Your task to perform on an android device: Open Google Image 0: 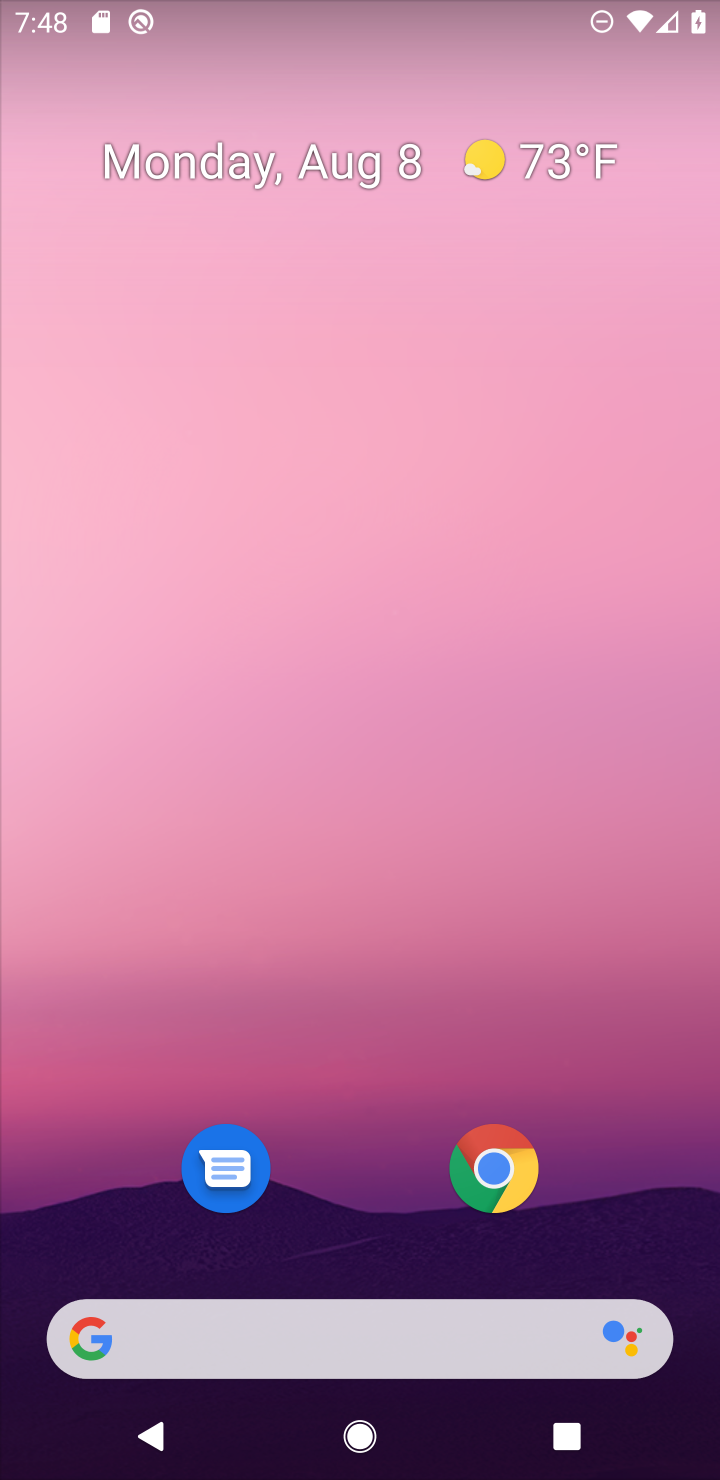
Step 0: press home button
Your task to perform on an android device: Open Google Image 1: 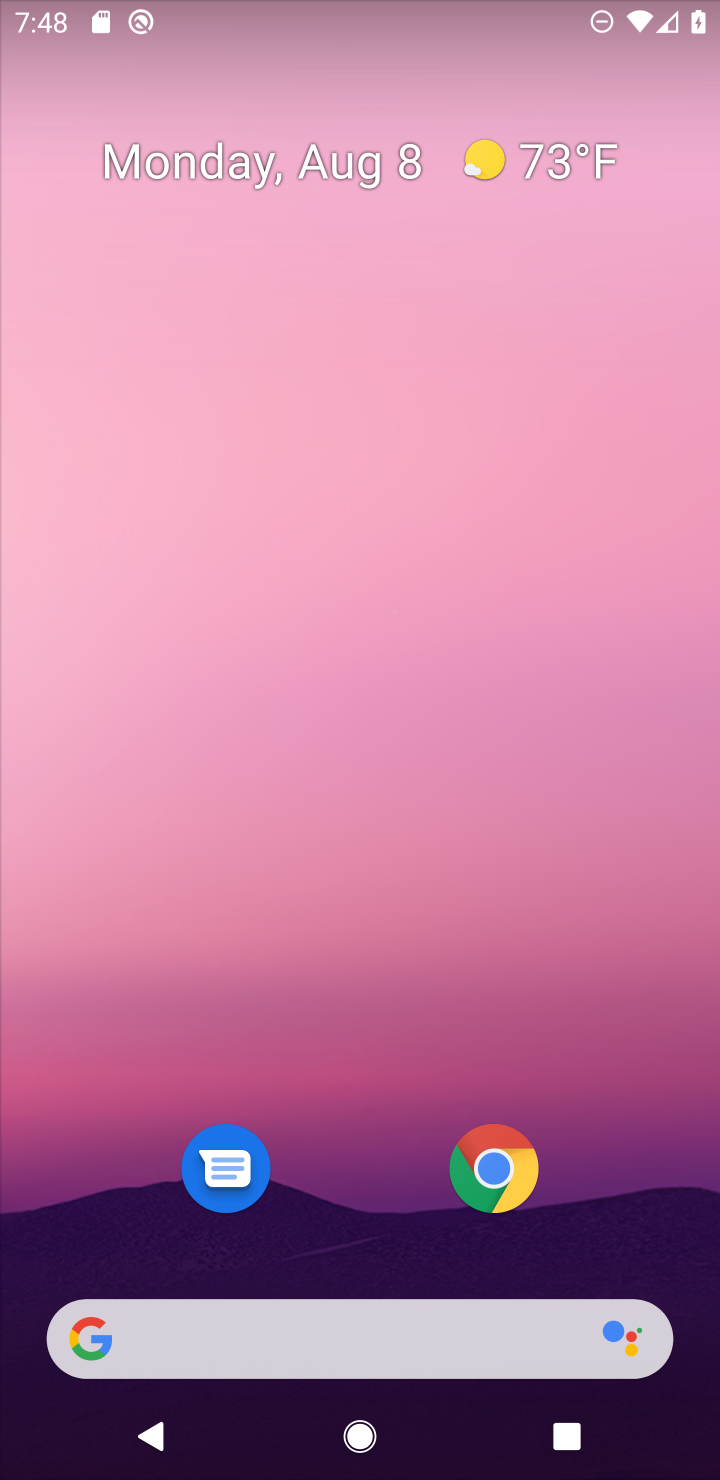
Step 1: drag from (379, 1263) to (563, 263)
Your task to perform on an android device: Open Google Image 2: 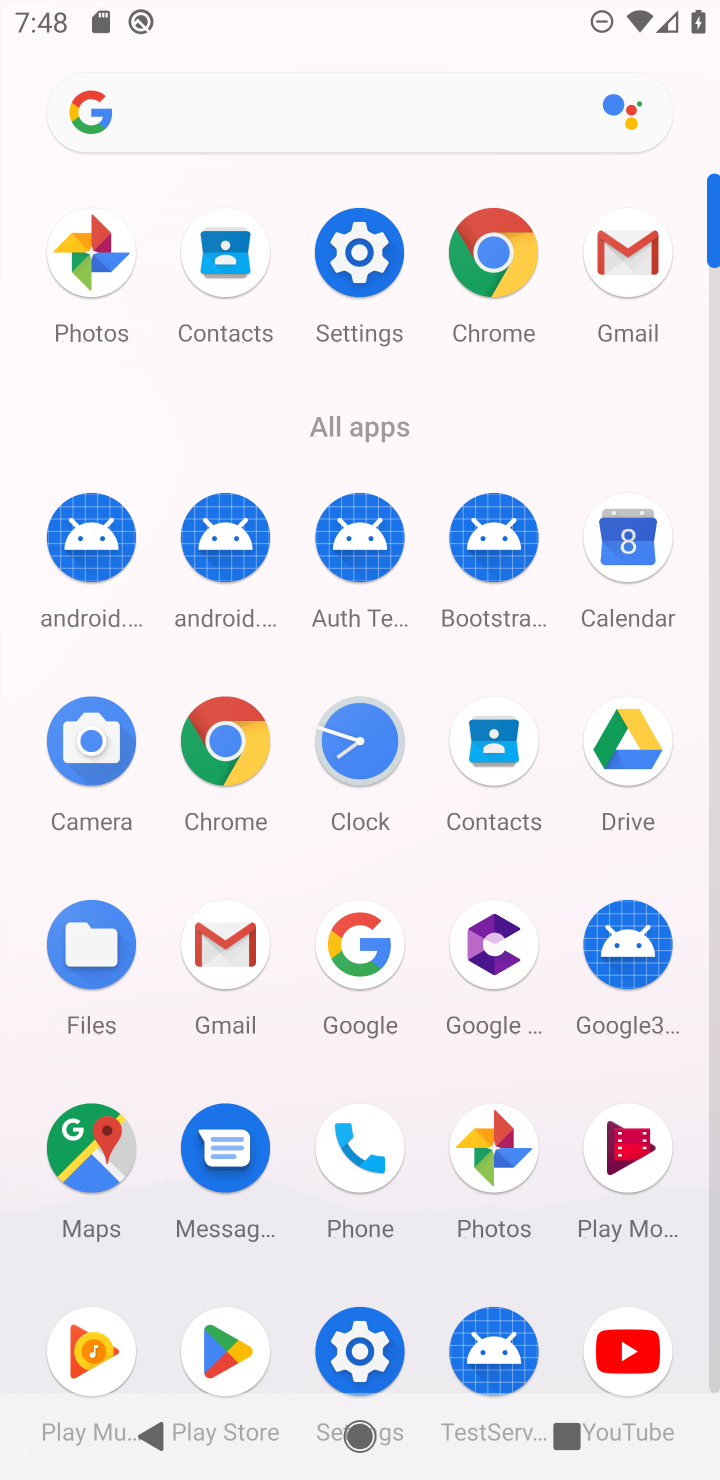
Step 2: click (354, 937)
Your task to perform on an android device: Open Google Image 3: 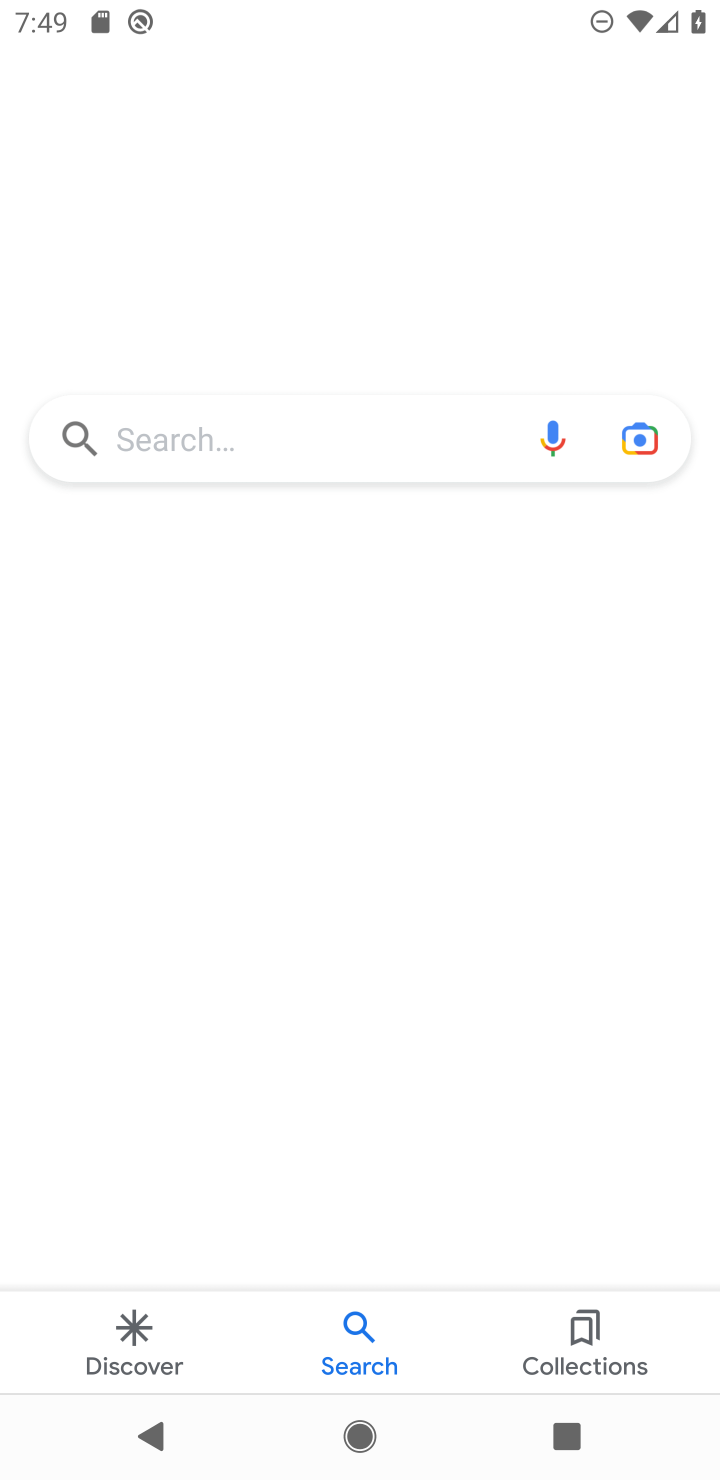
Step 3: task complete